Your task to perform on an android device: Clear the shopping cart on newegg. Add "logitech g pro" to the cart on newegg, then select checkout. Image 0: 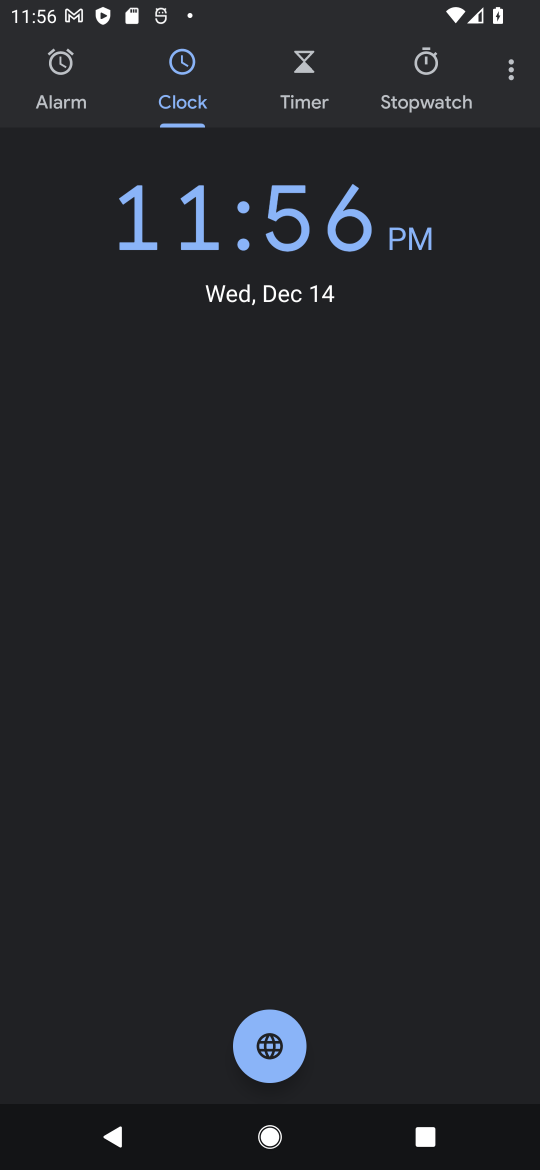
Step 0: press home button
Your task to perform on an android device: Clear the shopping cart on newegg. Add "logitech g pro" to the cart on newegg, then select checkout. Image 1: 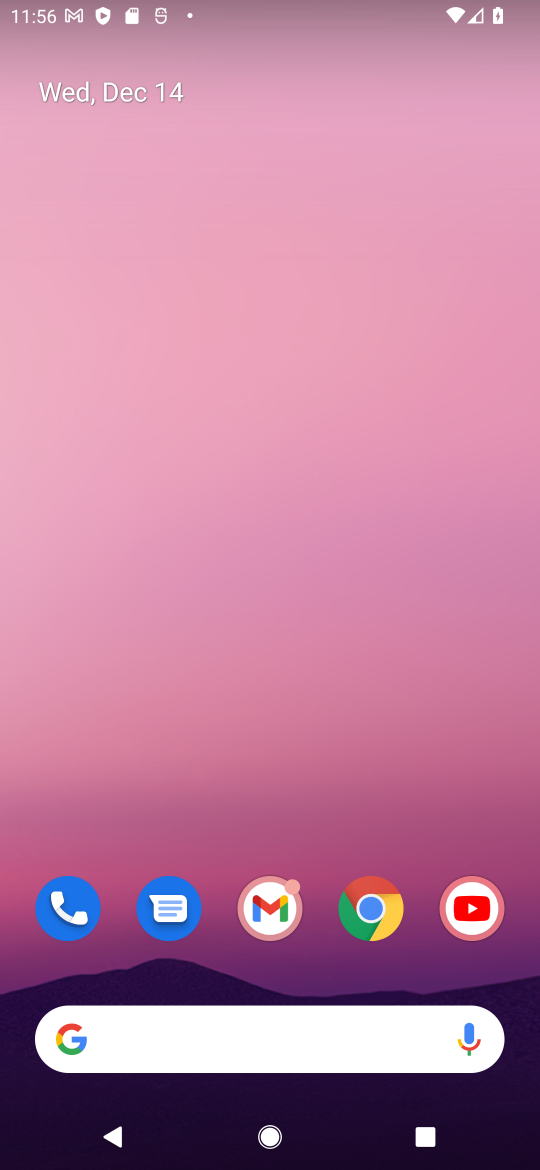
Step 1: click (378, 910)
Your task to perform on an android device: Clear the shopping cart on newegg. Add "logitech g pro" to the cart on newegg, then select checkout. Image 2: 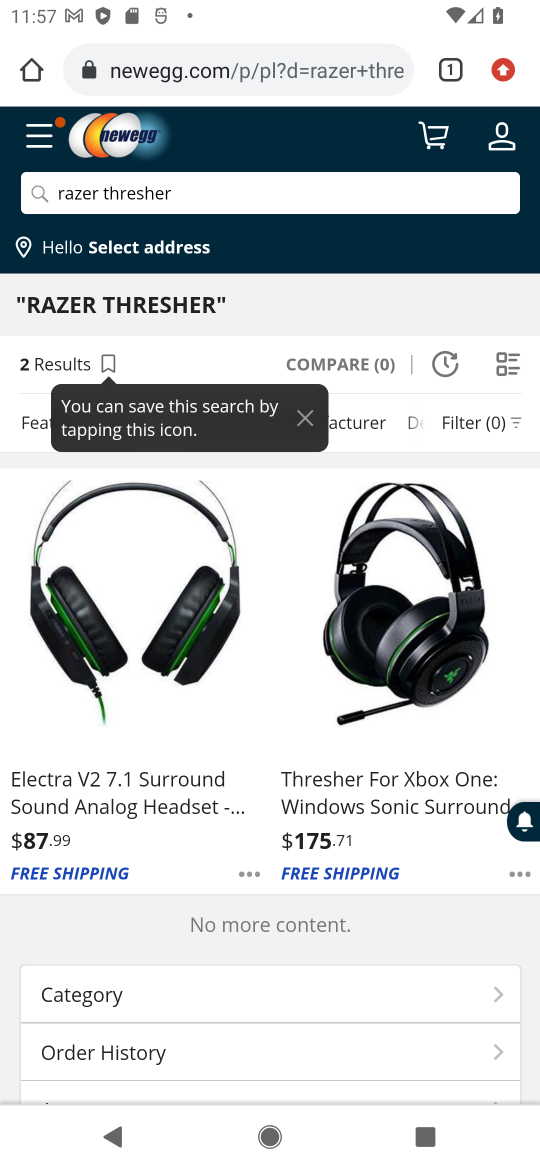
Step 2: click (443, 141)
Your task to perform on an android device: Clear the shopping cart on newegg. Add "logitech g pro" to the cart on newegg, then select checkout. Image 3: 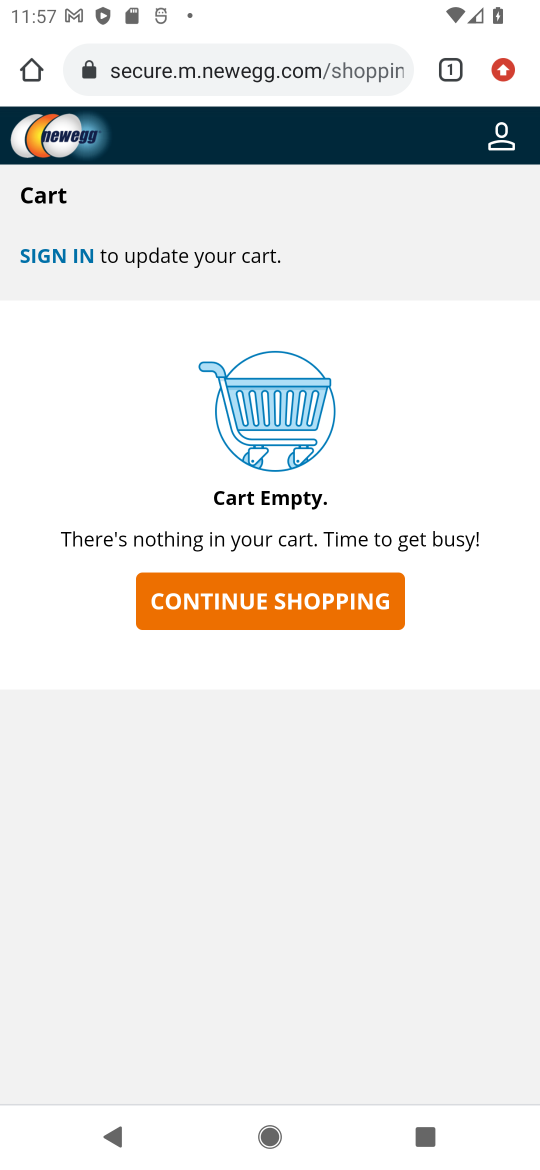
Step 3: click (264, 608)
Your task to perform on an android device: Clear the shopping cart on newegg. Add "logitech g pro" to the cart on newegg, then select checkout. Image 4: 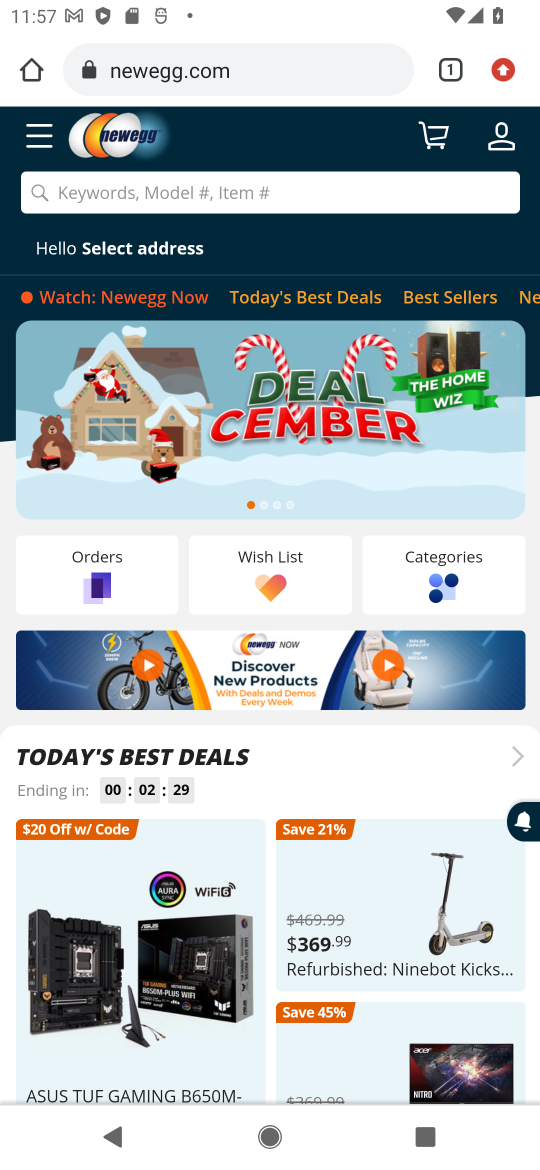
Step 4: click (130, 205)
Your task to perform on an android device: Clear the shopping cart on newegg. Add "logitech g pro" to the cart on newegg, then select checkout. Image 5: 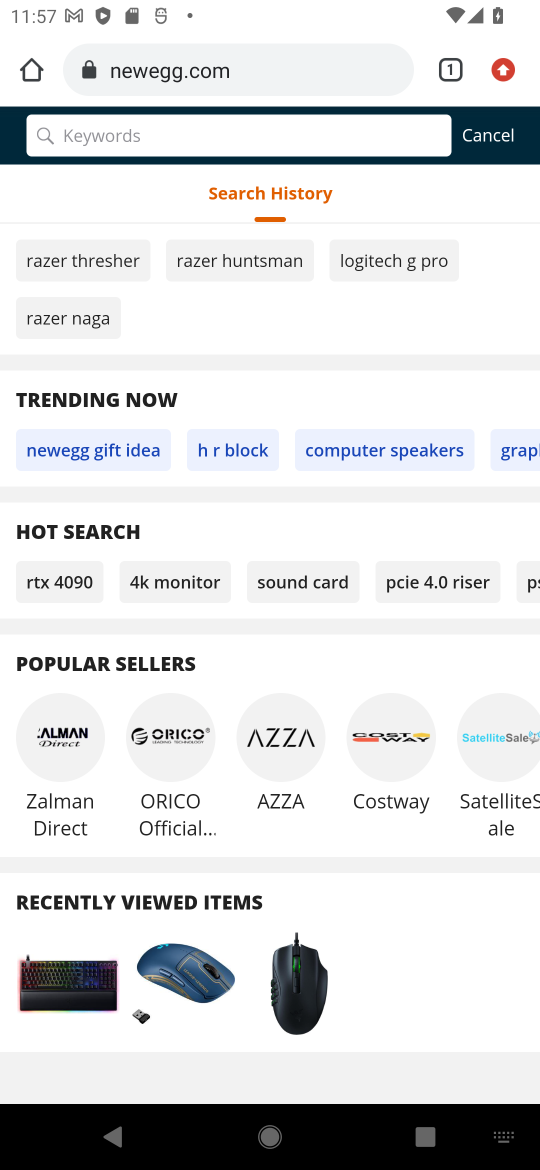
Step 5: type "logitech g pro"
Your task to perform on an android device: Clear the shopping cart on newegg. Add "logitech g pro" to the cart on newegg, then select checkout. Image 6: 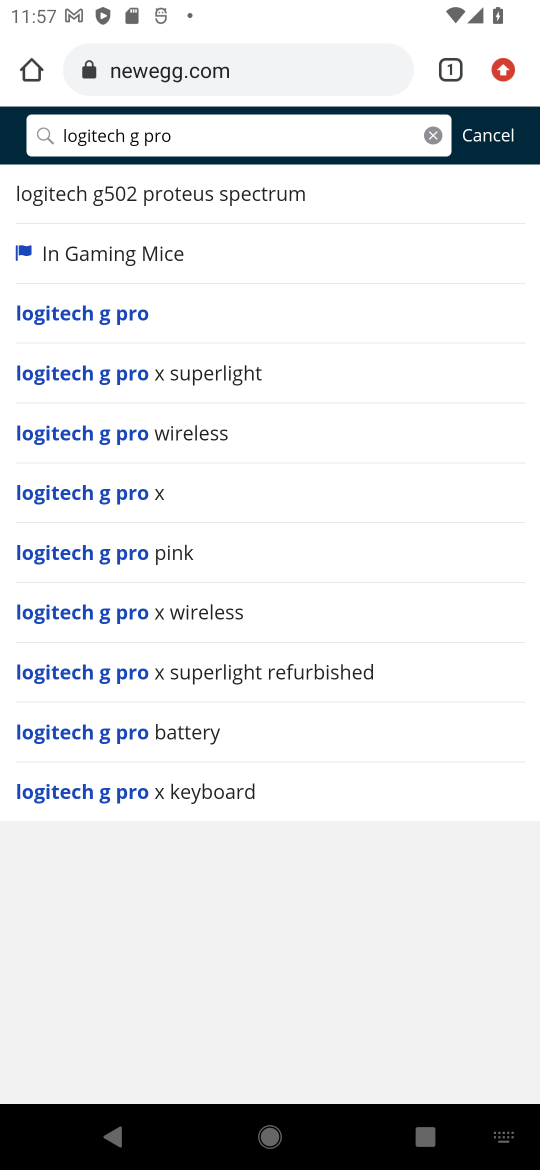
Step 6: click (92, 317)
Your task to perform on an android device: Clear the shopping cart on newegg. Add "logitech g pro" to the cart on newegg, then select checkout. Image 7: 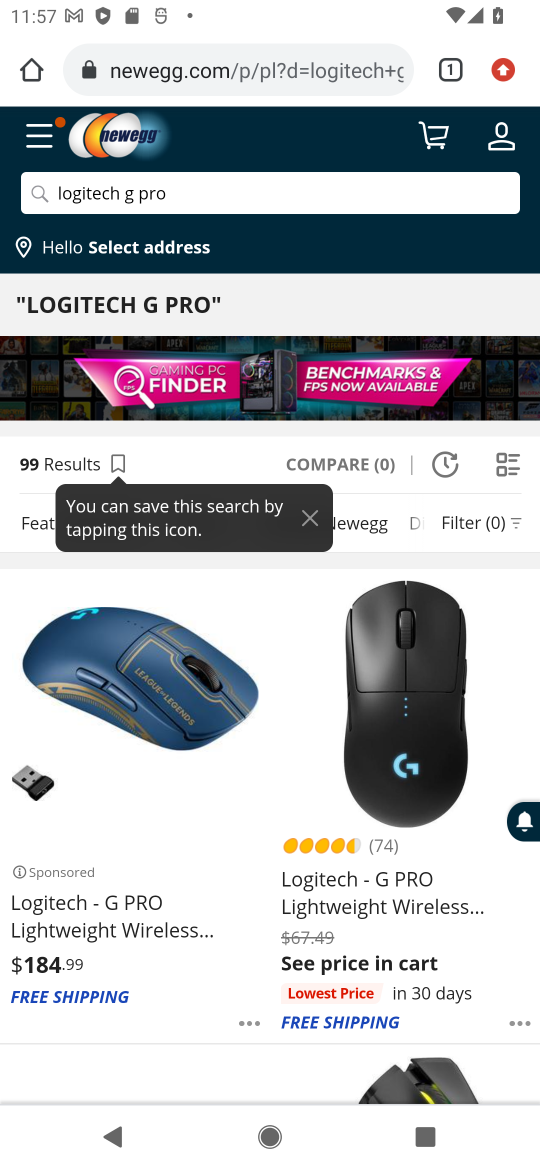
Step 7: click (91, 915)
Your task to perform on an android device: Clear the shopping cart on newegg. Add "logitech g pro" to the cart on newegg, then select checkout. Image 8: 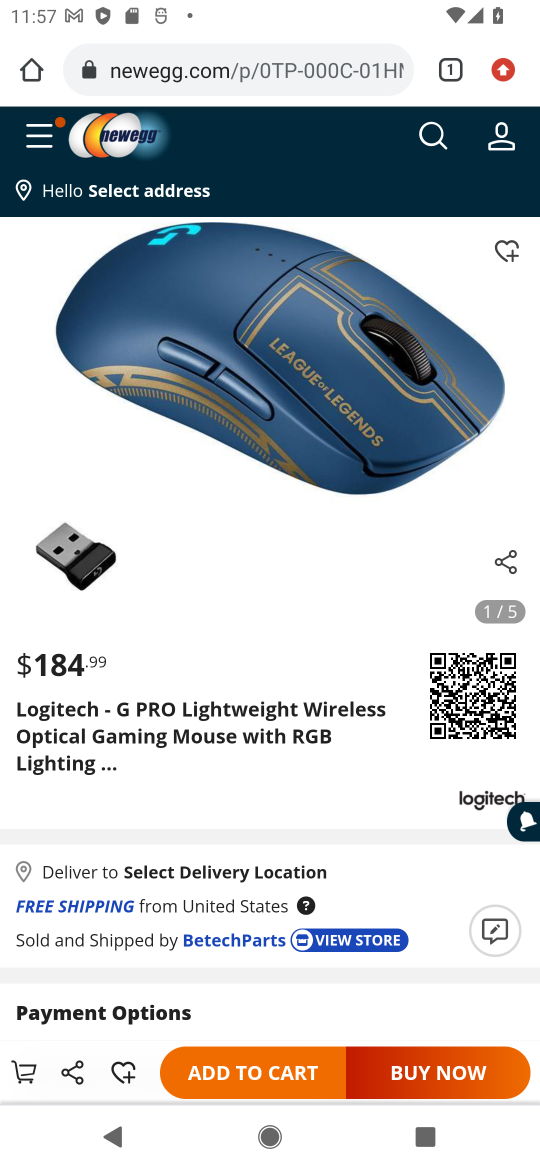
Step 8: click (252, 1076)
Your task to perform on an android device: Clear the shopping cart on newegg. Add "logitech g pro" to the cart on newegg, then select checkout. Image 9: 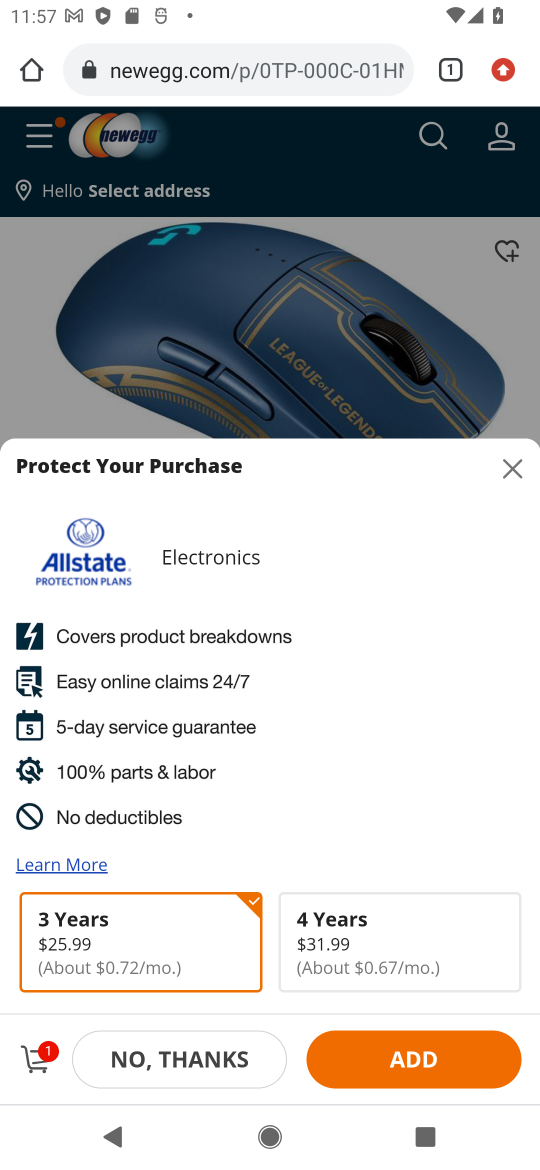
Step 9: click (44, 1061)
Your task to perform on an android device: Clear the shopping cart on newegg. Add "logitech g pro" to the cart on newegg, then select checkout. Image 10: 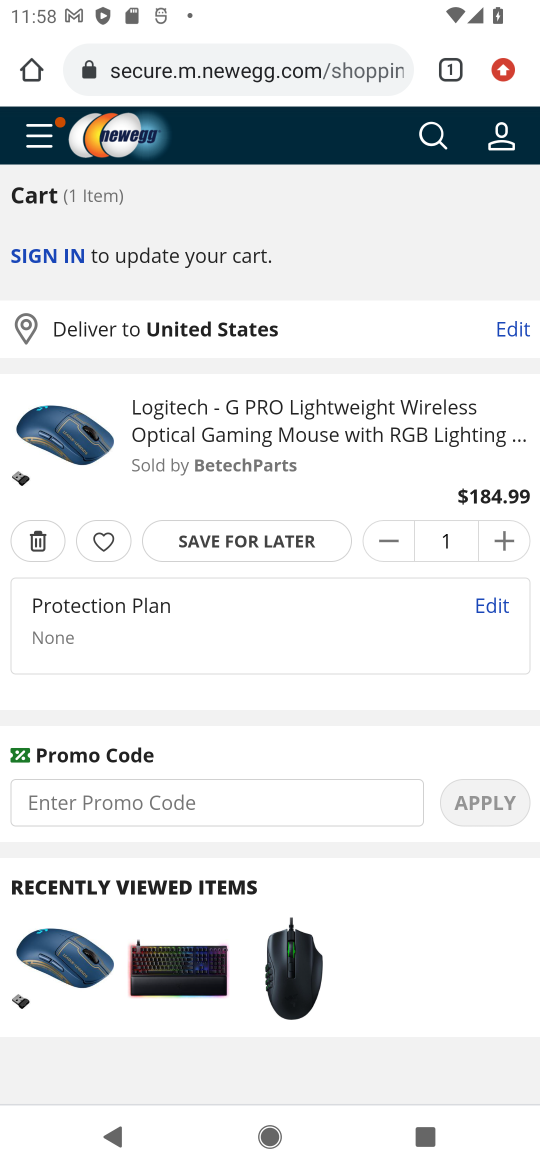
Step 10: drag from (251, 956) to (253, 896)
Your task to perform on an android device: Clear the shopping cart on newegg. Add "logitech g pro" to the cart on newegg, then select checkout. Image 11: 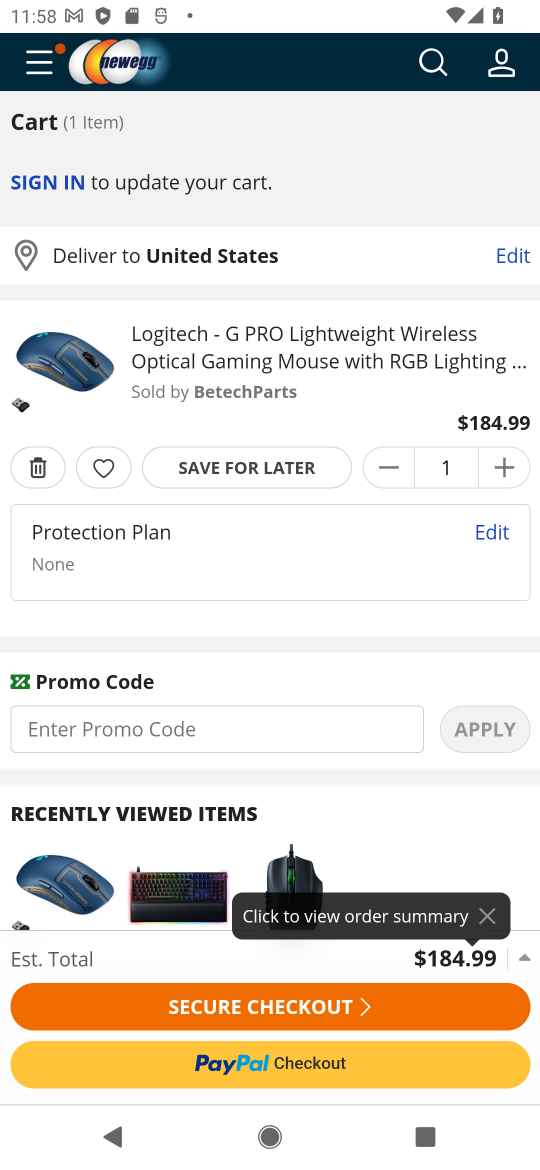
Step 11: click (251, 977)
Your task to perform on an android device: Clear the shopping cart on newegg. Add "logitech g pro" to the cart on newegg, then select checkout. Image 12: 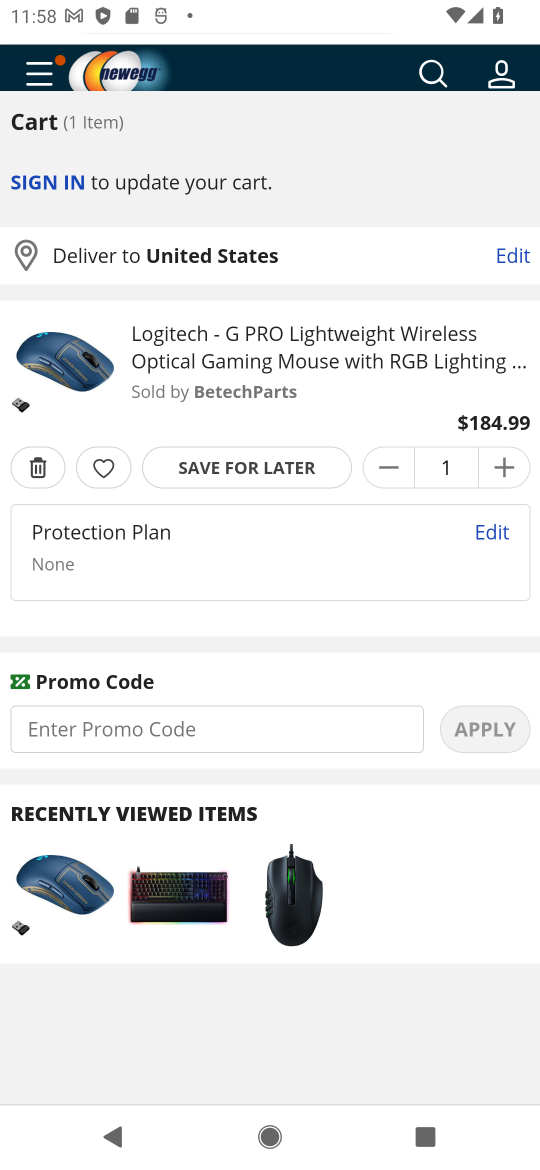
Step 12: click (246, 1001)
Your task to perform on an android device: Clear the shopping cart on newegg. Add "logitech g pro" to the cart on newegg, then select checkout. Image 13: 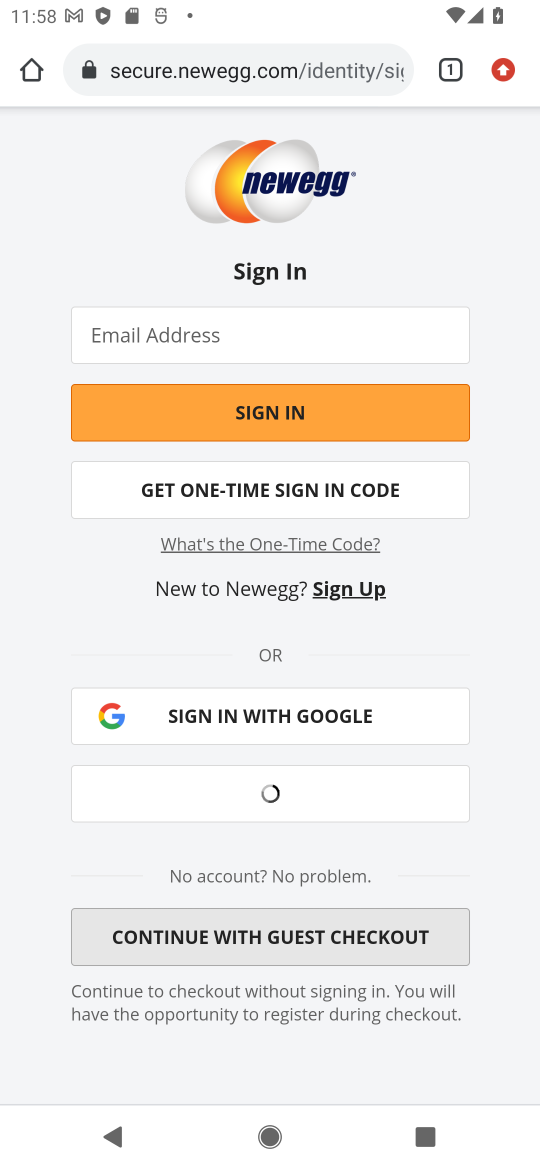
Step 13: click (246, 1001)
Your task to perform on an android device: Clear the shopping cart on newegg. Add "logitech g pro" to the cart on newegg, then select checkout. Image 14: 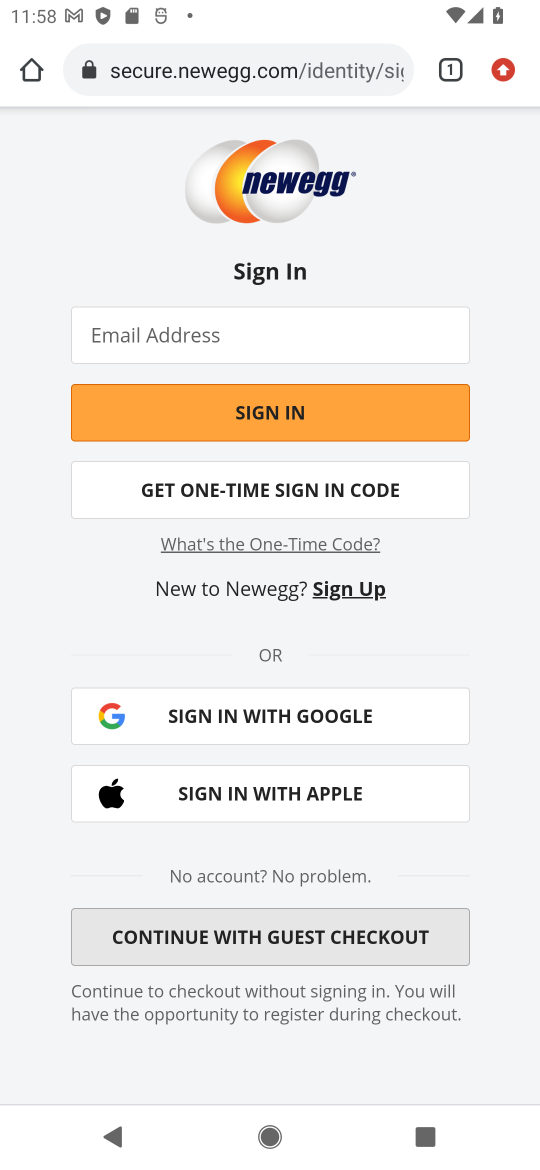
Step 14: task complete